Your task to perform on an android device: empty trash in the gmail app Image 0: 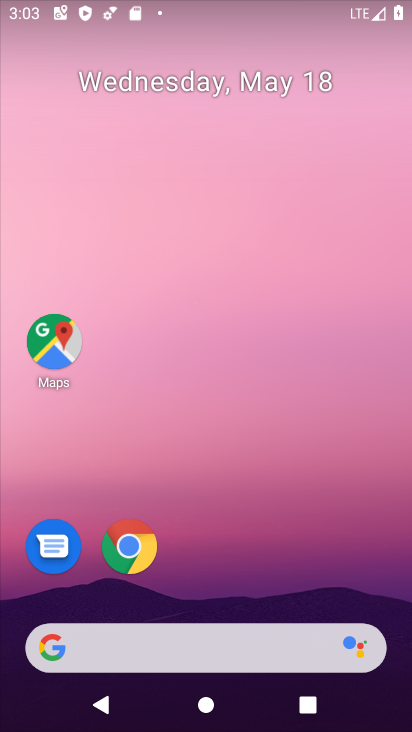
Step 0: drag from (238, 726) to (237, 220)
Your task to perform on an android device: empty trash in the gmail app Image 1: 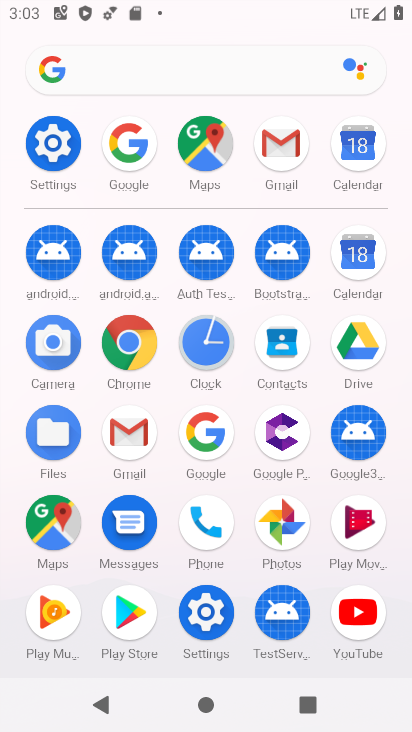
Step 1: click (278, 148)
Your task to perform on an android device: empty trash in the gmail app Image 2: 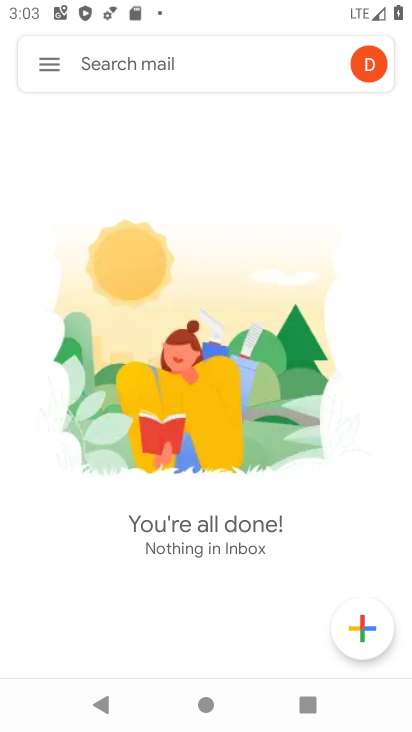
Step 2: click (45, 68)
Your task to perform on an android device: empty trash in the gmail app Image 3: 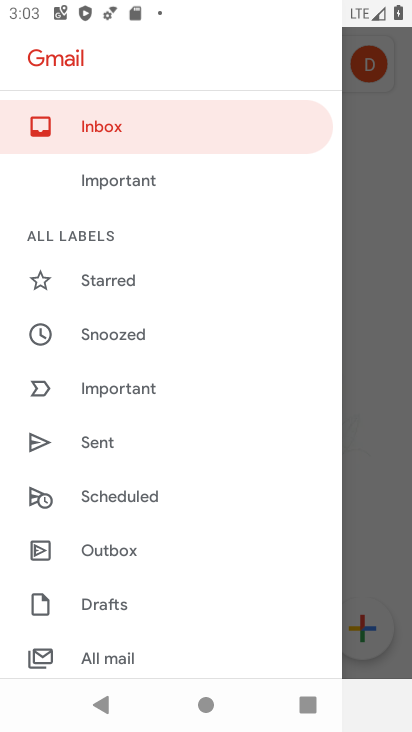
Step 3: drag from (117, 602) to (149, 243)
Your task to perform on an android device: empty trash in the gmail app Image 4: 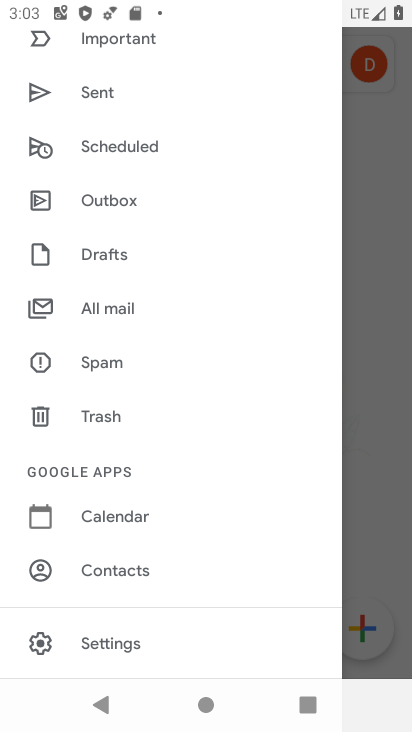
Step 4: click (104, 422)
Your task to perform on an android device: empty trash in the gmail app Image 5: 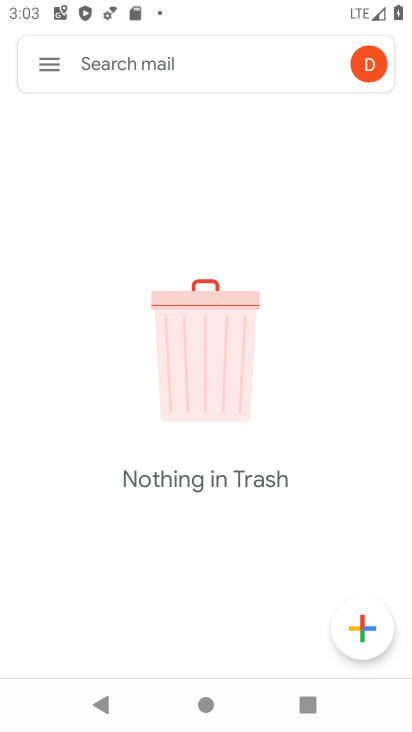
Step 5: task complete